Your task to perform on an android device: change the upload size in google photos Image 0: 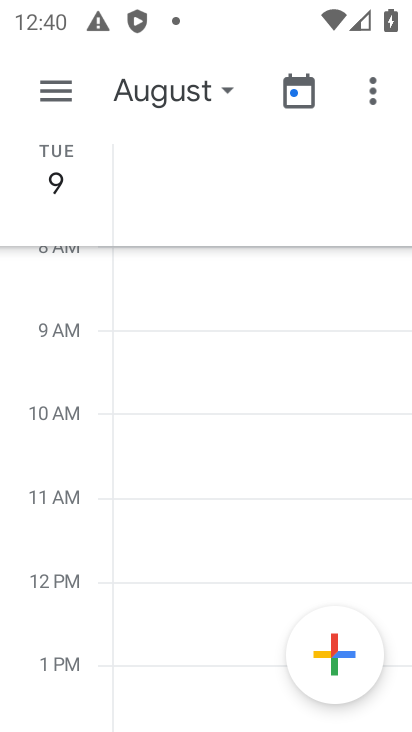
Step 0: press home button
Your task to perform on an android device: change the upload size in google photos Image 1: 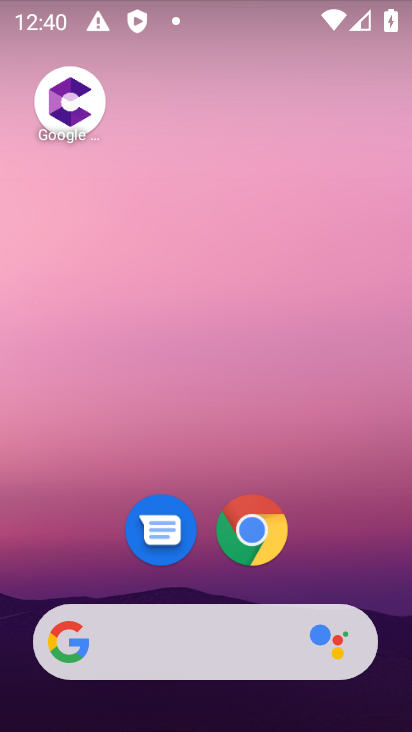
Step 1: drag from (214, 489) to (214, 25)
Your task to perform on an android device: change the upload size in google photos Image 2: 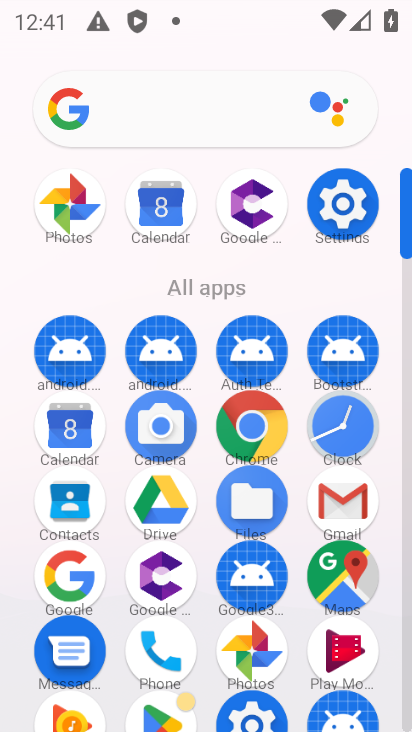
Step 2: click (243, 642)
Your task to perform on an android device: change the upload size in google photos Image 3: 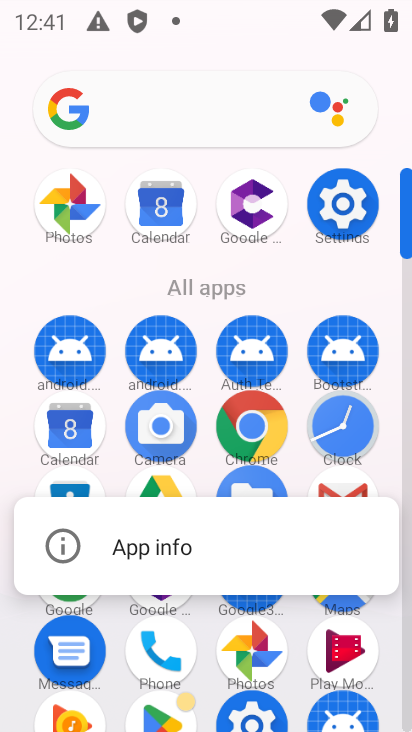
Step 3: click (257, 656)
Your task to perform on an android device: change the upload size in google photos Image 4: 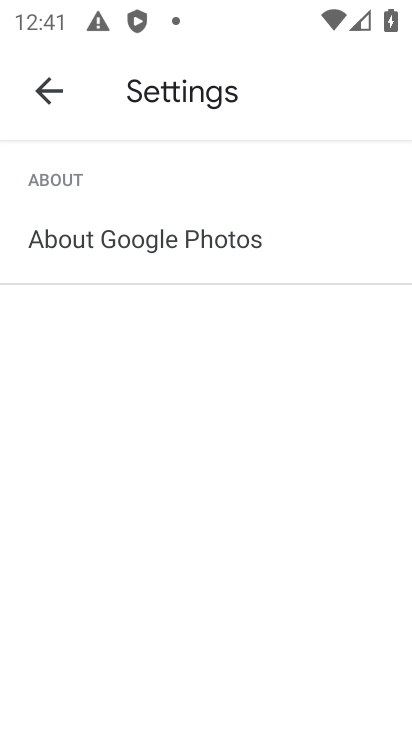
Step 4: click (47, 83)
Your task to perform on an android device: change the upload size in google photos Image 5: 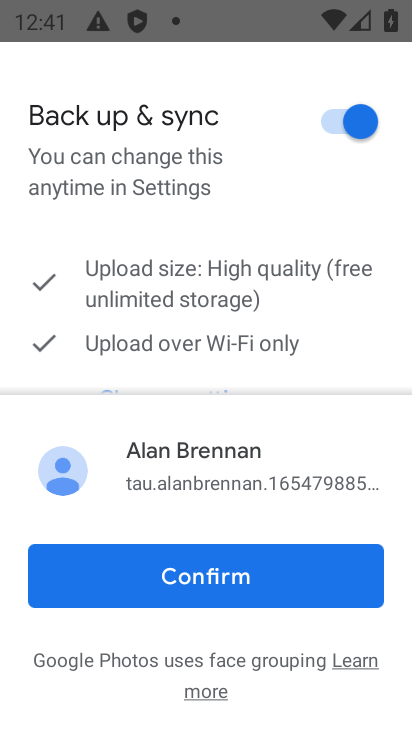
Step 5: click (197, 572)
Your task to perform on an android device: change the upload size in google photos Image 6: 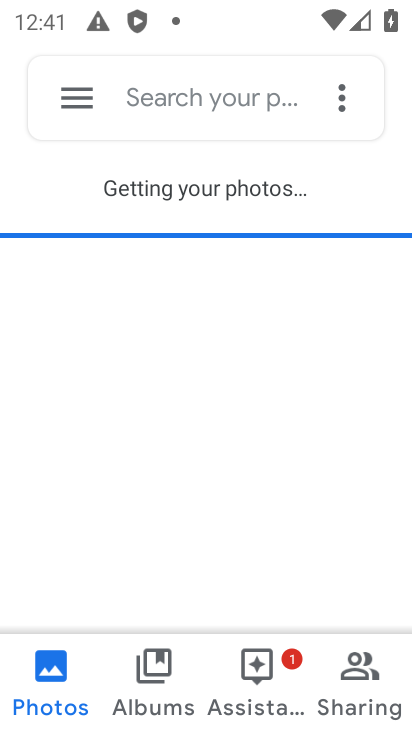
Step 6: click (80, 92)
Your task to perform on an android device: change the upload size in google photos Image 7: 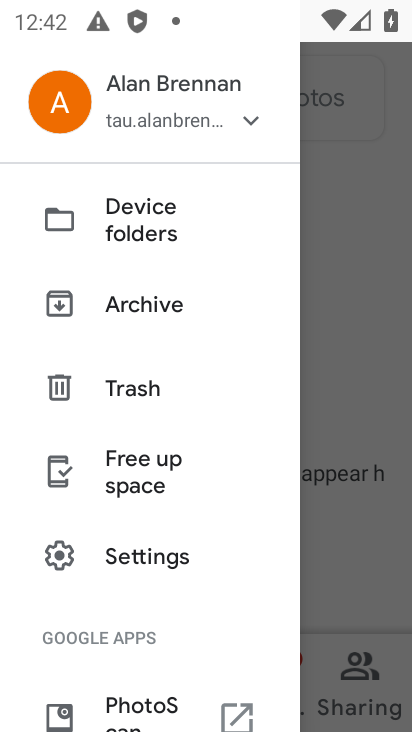
Step 7: click (139, 556)
Your task to perform on an android device: change the upload size in google photos Image 8: 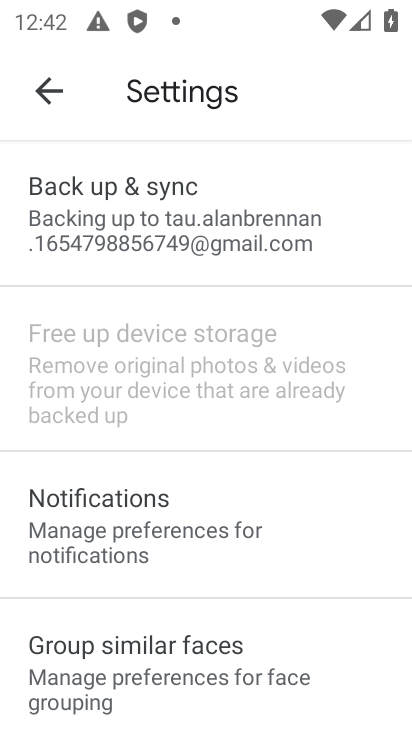
Step 8: drag from (98, 633) to (97, 336)
Your task to perform on an android device: change the upload size in google photos Image 9: 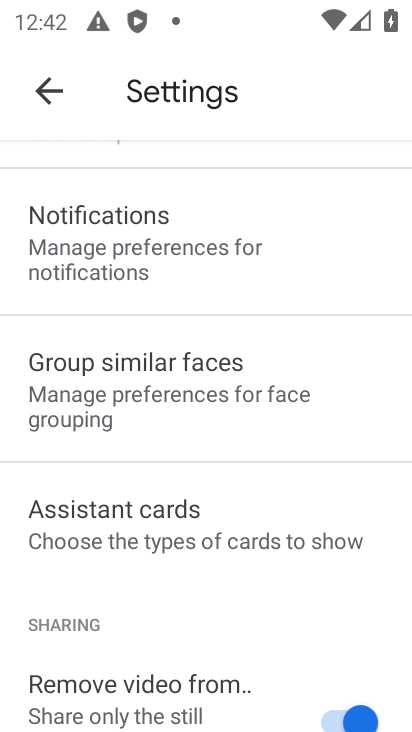
Step 9: drag from (191, 177) to (204, 621)
Your task to perform on an android device: change the upload size in google photos Image 10: 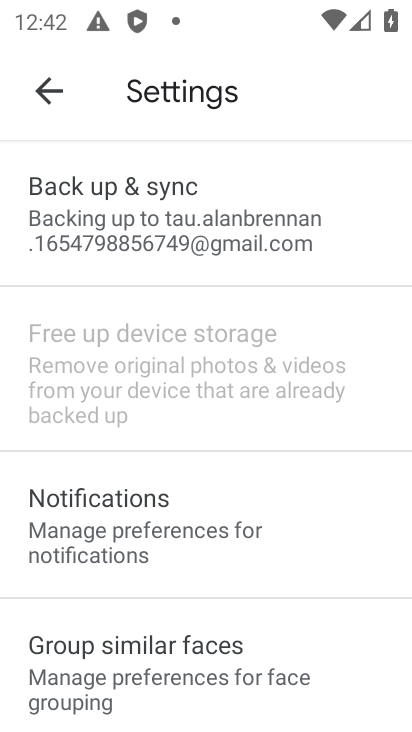
Step 10: click (146, 210)
Your task to perform on an android device: change the upload size in google photos Image 11: 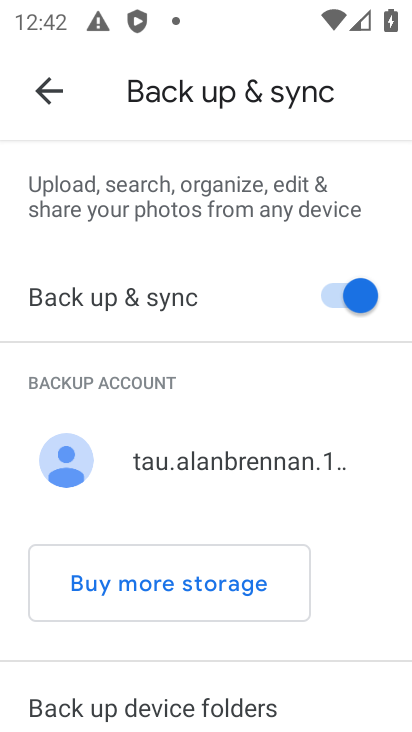
Step 11: drag from (108, 679) to (107, 252)
Your task to perform on an android device: change the upload size in google photos Image 12: 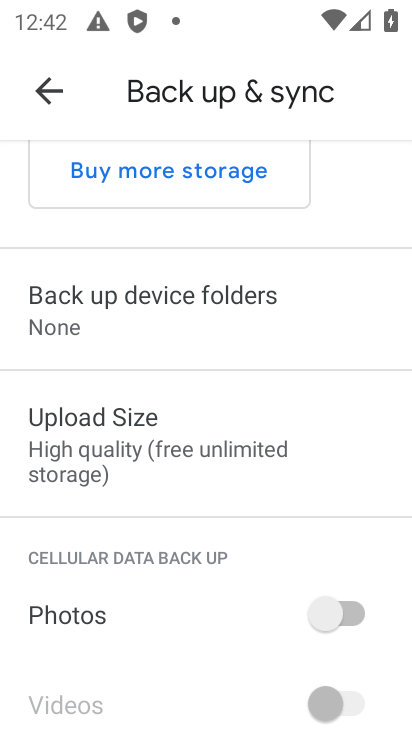
Step 12: drag from (161, 619) to (162, 441)
Your task to perform on an android device: change the upload size in google photos Image 13: 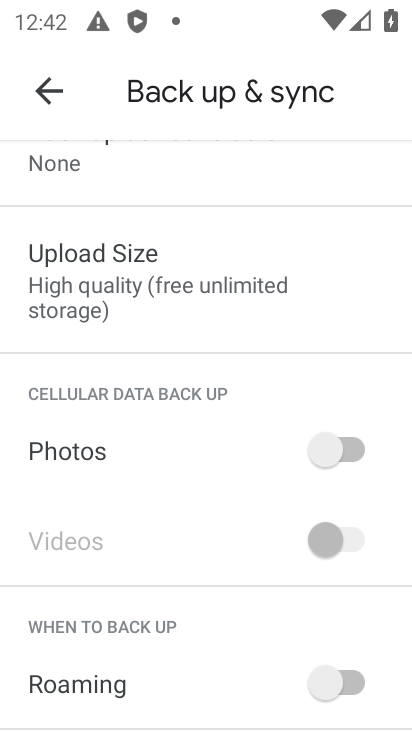
Step 13: click (92, 275)
Your task to perform on an android device: change the upload size in google photos Image 14: 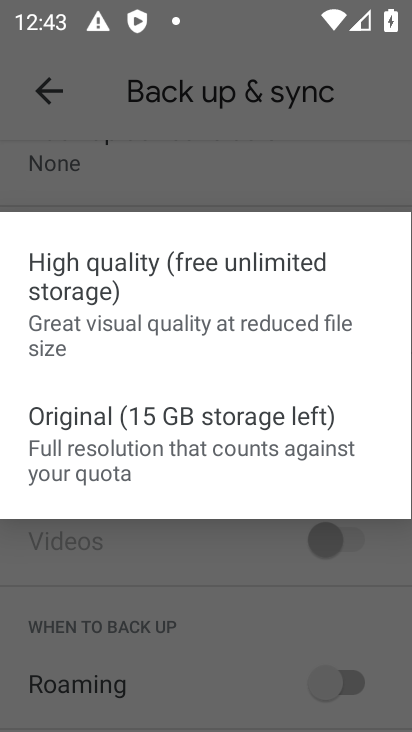
Step 14: click (86, 473)
Your task to perform on an android device: change the upload size in google photos Image 15: 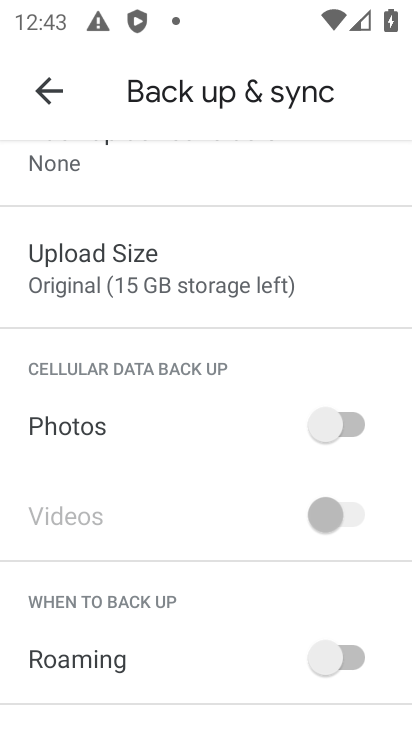
Step 15: task complete